Your task to perform on an android device: check data usage Image 0: 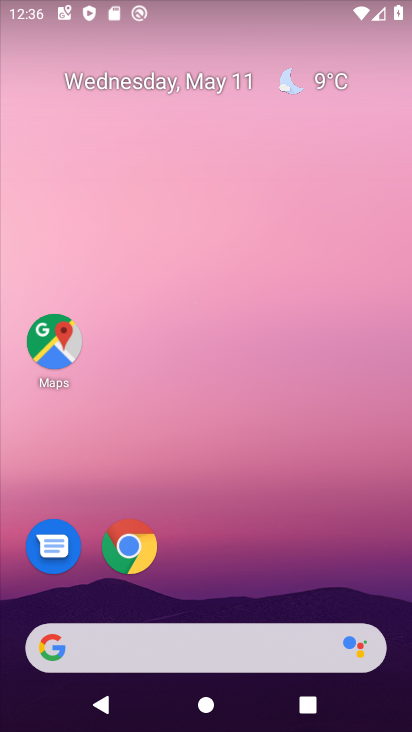
Step 0: drag from (185, 671) to (274, 5)
Your task to perform on an android device: check data usage Image 1: 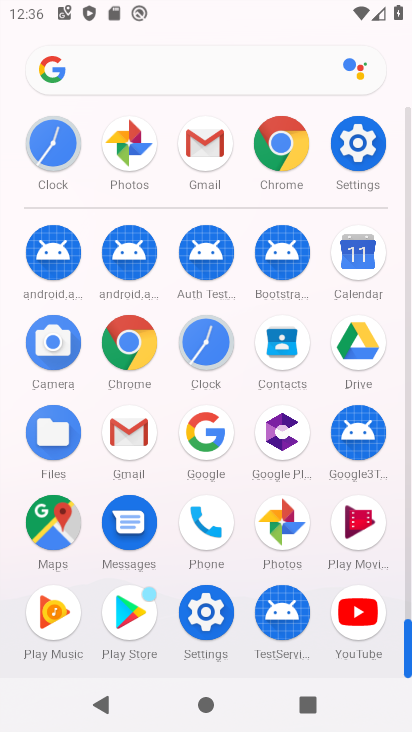
Step 1: drag from (253, 578) to (237, 280)
Your task to perform on an android device: check data usage Image 2: 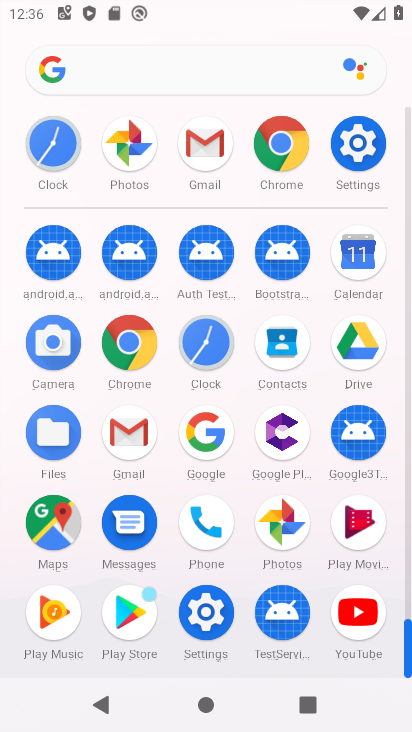
Step 2: click (221, 615)
Your task to perform on an android device: check data usage Image 3: 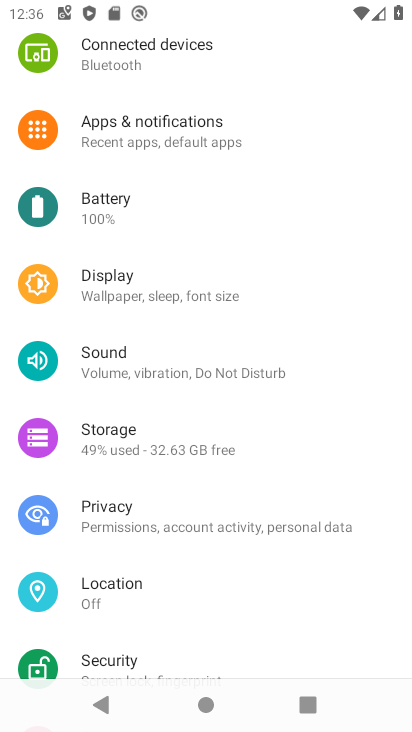
Step 3: drag from (336, 346) to (315, 655)
Your task to perform on an android device: check data usage Image 4: 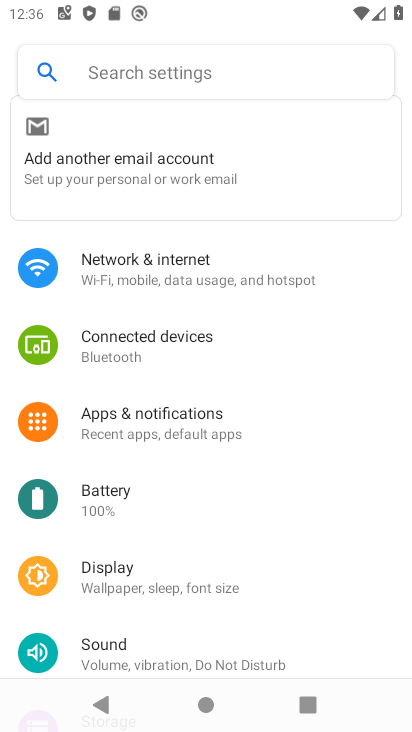
Step 4: click (253, 280)
Your task to perform on an android device: check data usage Image 5: 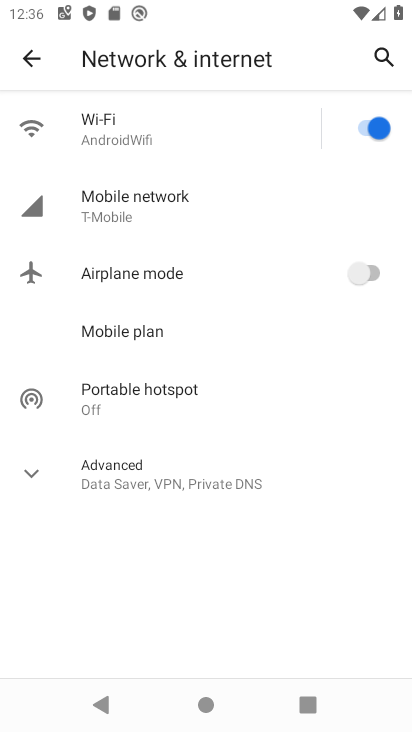
Step 5: click (220, 214)
Your task to perform on an android device: check data usage Image 6: 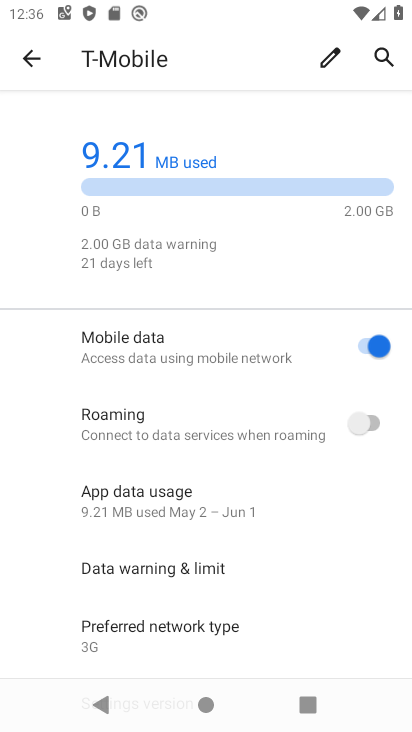
Step 6: drag from (243, 494) to (255, 328)
Your task to perform on an android device: check data usage Image 7: 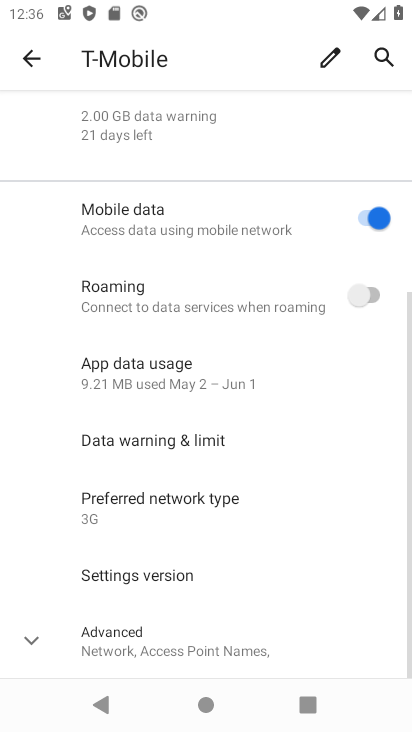
Step 7: click (232, 383)
Your task to perform on an android device: check data usage Image 8: 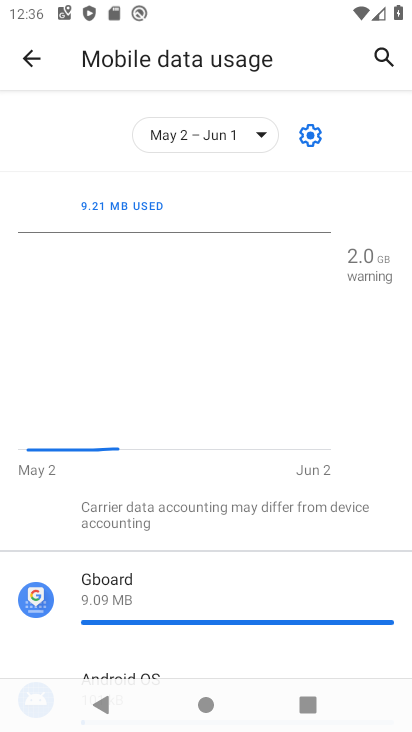
Step 8: task complete